Your task to perform on an android device: Go to accessibility settings Image 0: 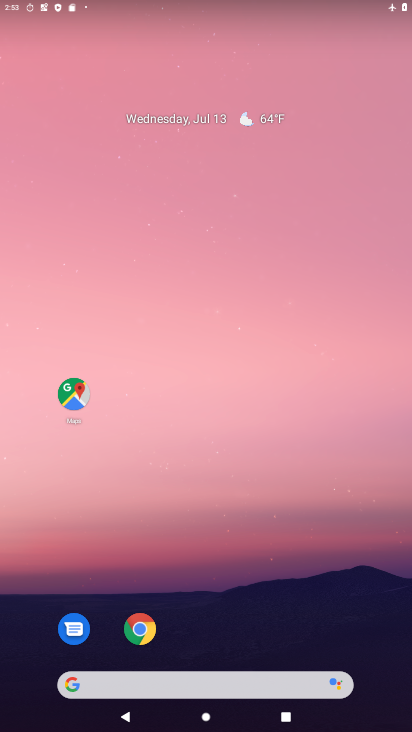
Step 0: drag from (236, 681) to (304, 51)
Your task to perform on an android device: Go to accessibility settings Image 1: 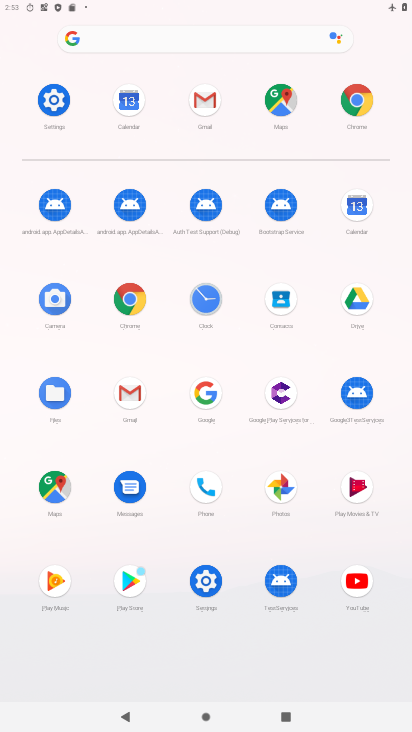
Step 1: click (52, 94)
Your task to perform on an android device: Go to accessibility settings Image 2: 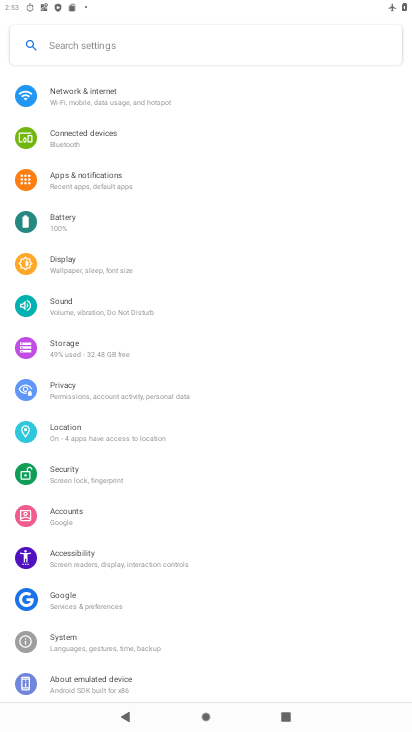
Step 2: click (80, 563)
Your task to perform on an android device: Go to accessibility settings Image 3: 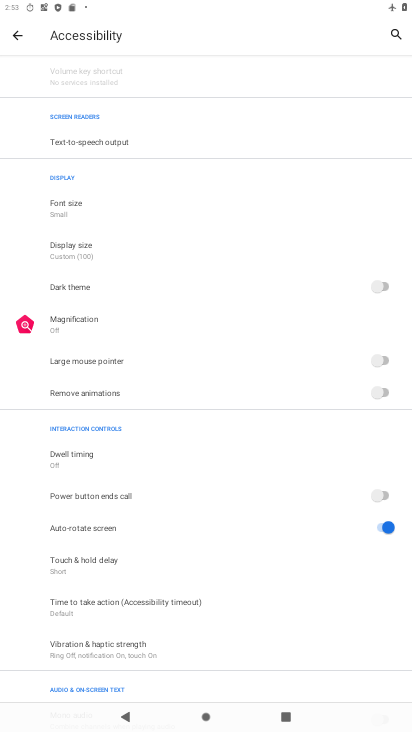
Step 3: task complete